Your task to perform on an android device: turn on improve location accuracy Image 0: 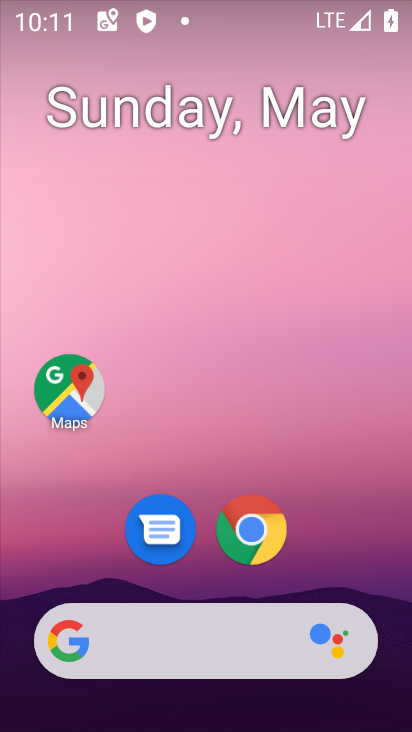
Step 0: drag from (396, 540) to (301, 13)
Your task to perform on an android device: turn on improve location accuracy Image 1: 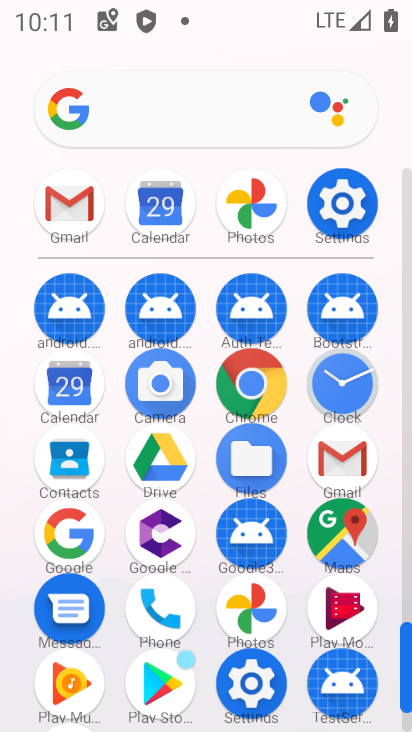
Step 1: click (357, 221)
Your task to perform on an android device: turn on improve location accuracy Image 2: 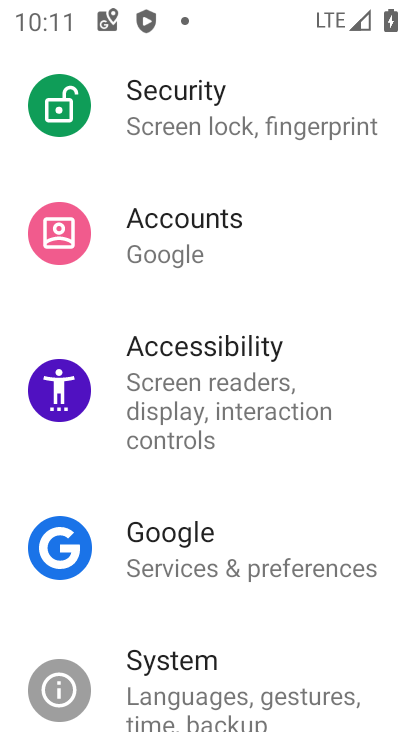
Step 2: drag from (234, 278) to (278, 549)
Your task to perform on an android device: turn on improve location accuracy Image 3: 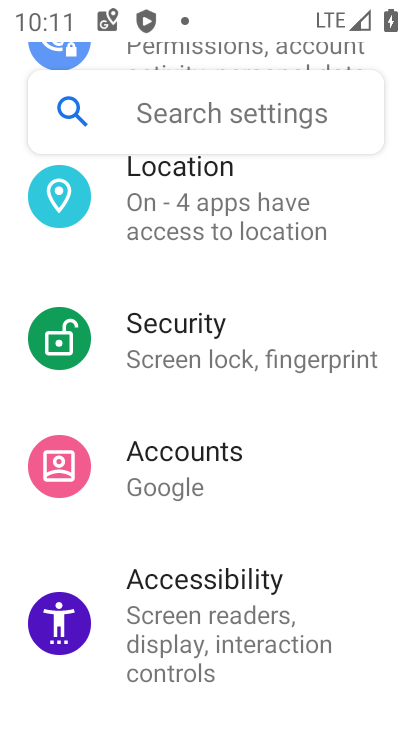
Step 3: click (251, 253)
Your task to perform on an android device: turn on improve location accuracy Image 4: 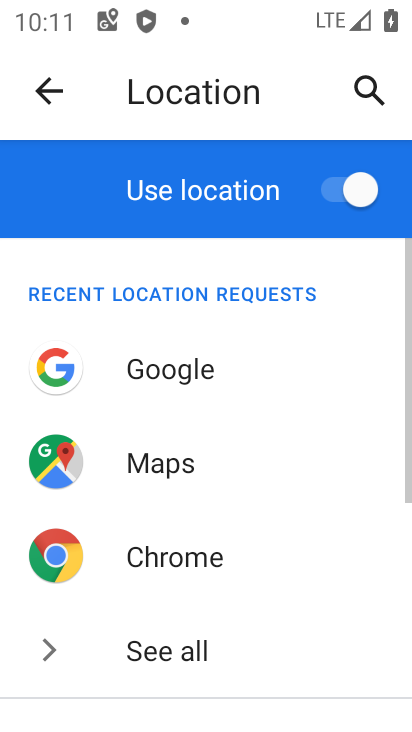
Step 4: task complete